Your task to perform on an android device: allow cookies in the chrome app Image 0: 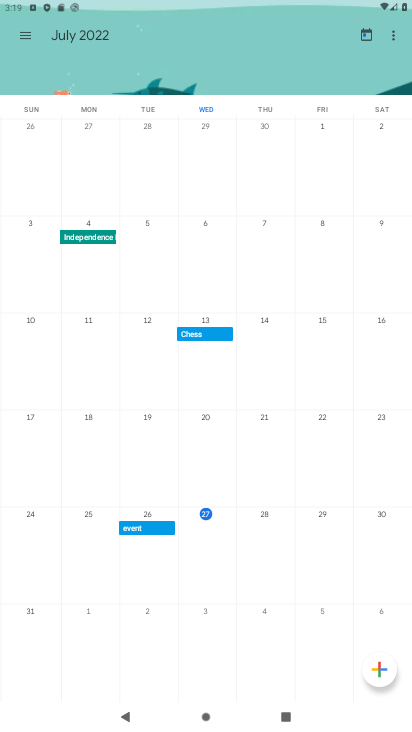
Step 0: press home button
Your task to perform on an android device: allow cookies in the chrome app Image 1: 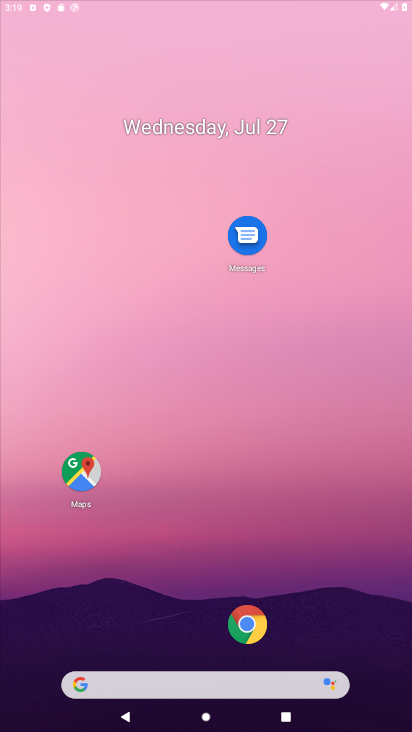
Step 1: click (200, 489)
Your task to perform on an android device: allow cookies in the chrome app Image 2: 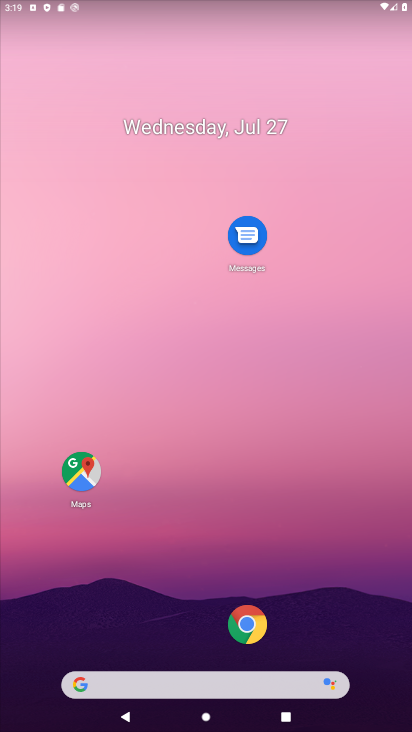
Step 2: click (245, 624)
Your task to perform on an android device: allow cookies in the chrome app Image 3: 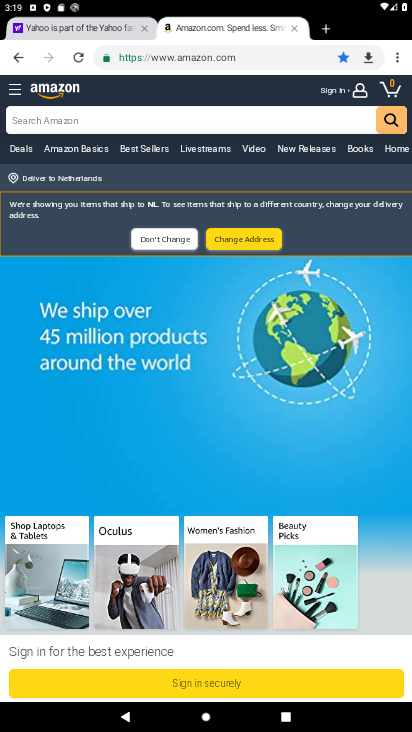
Step 3: click (401, 50)
Your task to perform on an android device: allow cookies in the chrome app Image 4: 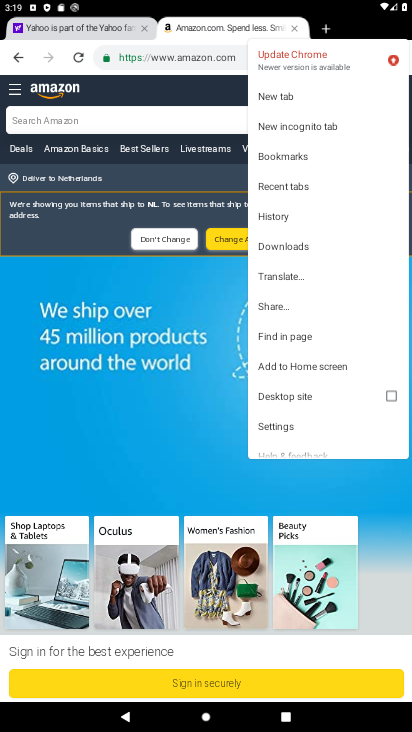
Step 4: click (303, 429)
Your task to perform on an android device: allow cookies in the chrome app Image 5: 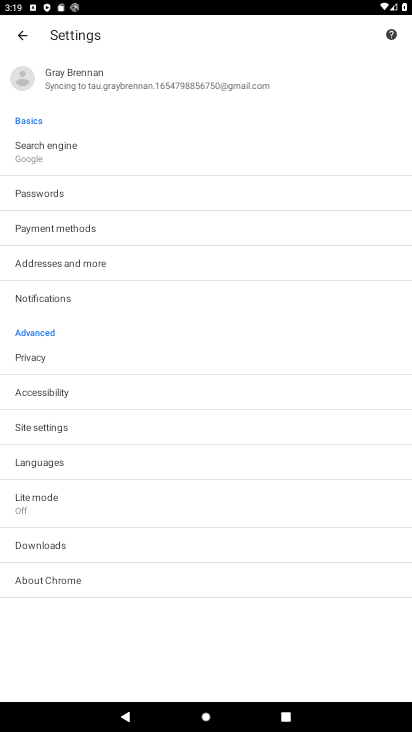
Step 5: click (78, 439)
Your task to perform on an android device: allow cookies in the chrome app Image 6: 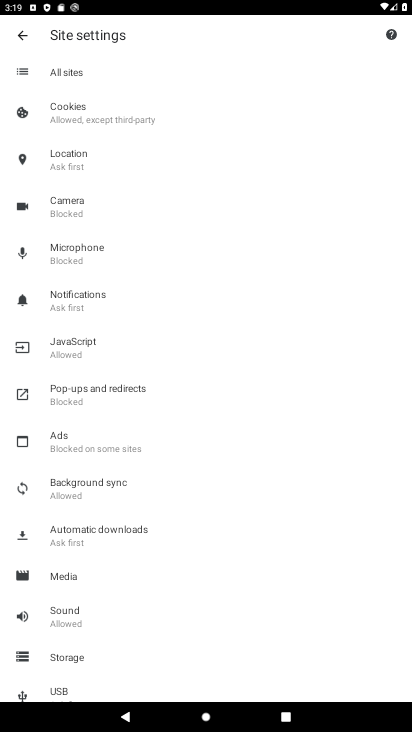
Step 6: click (65, 108)
Your task to perform on an android device: allow cookies in the chrome app Image 7: 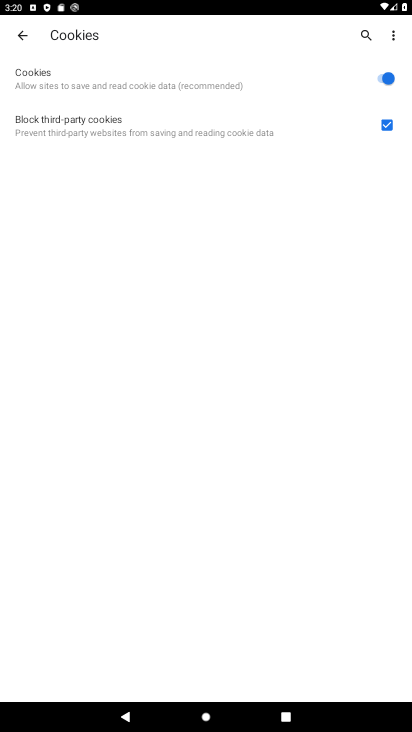
Step 7: task complete